Your task to perform on an android device: show emergency info Image 0: 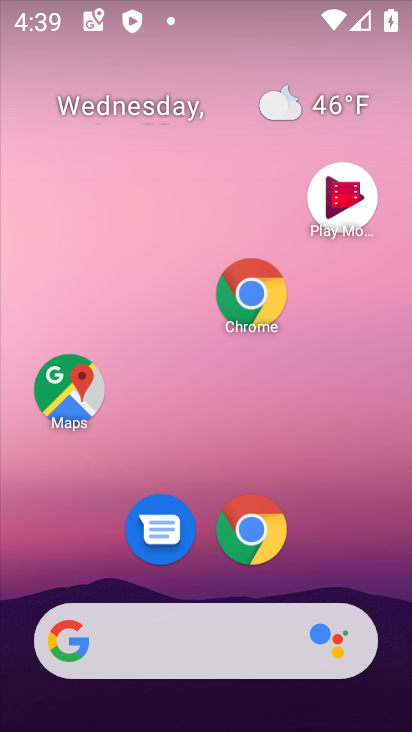
Step 0: drag from (297, 544) to (300, 132)
Your task to perform on an android device: show emergency info Image 1: 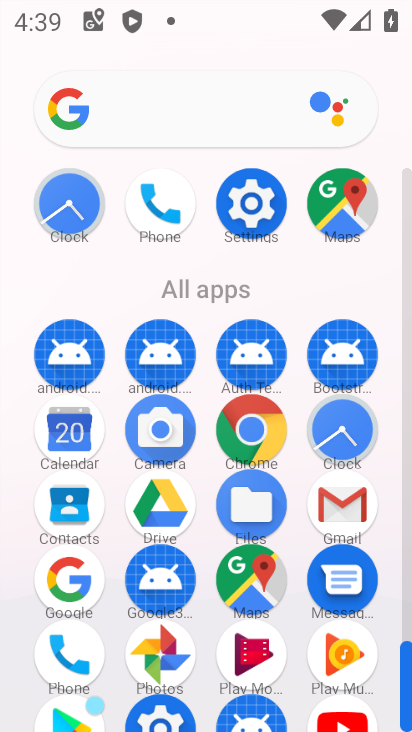
Step 1: click (249, 195)
Your task to perform on an android device: show emergency info Image 2: 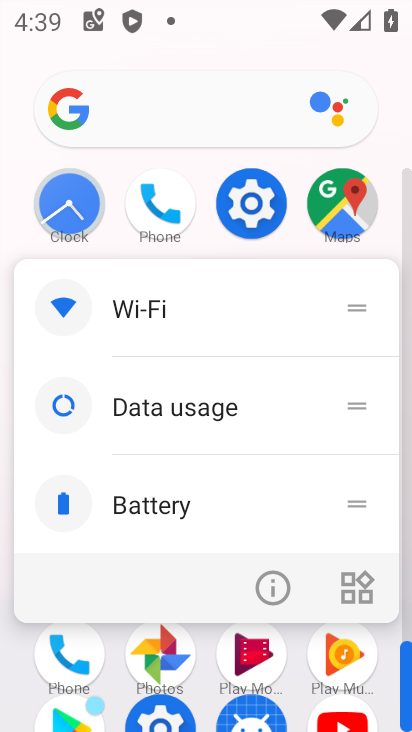
Step 2: click (248, 209)
Your task to perform on an android device: show emergency info Image 3: 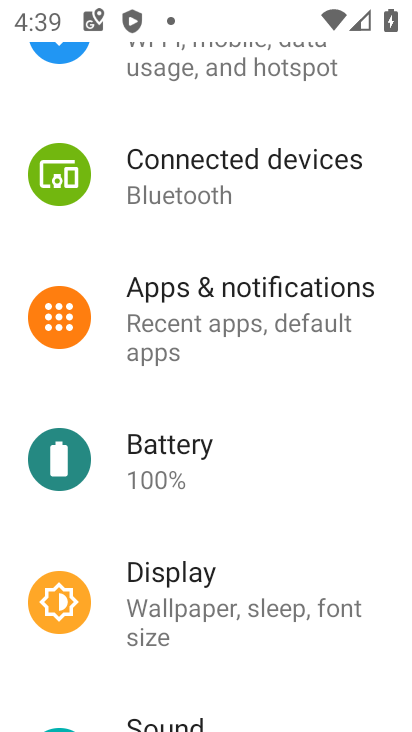
Step 3: drag from (280, 184) to (282, 616)
Your task to perform on an android device: show emergency info Image 4: 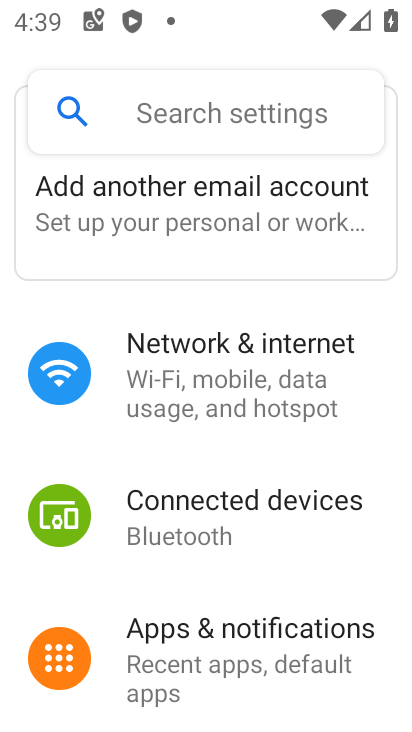
Step 4: click (236, 116)
Your task to perform on an android device: show emergency info Image 5: 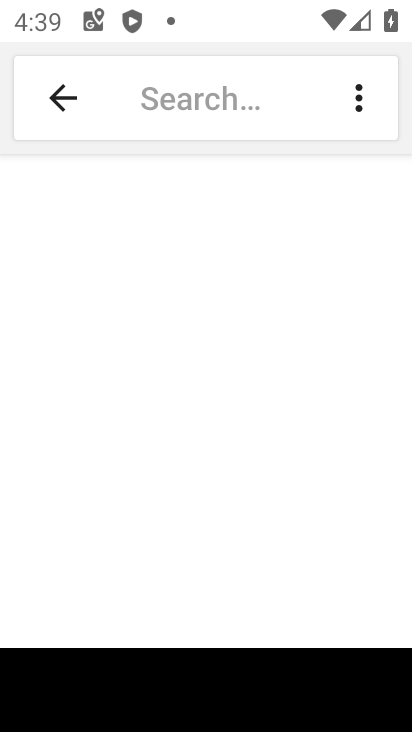
Step 5: type "emergency info"
Your task to perform on an android device: show emergency info Image 6: 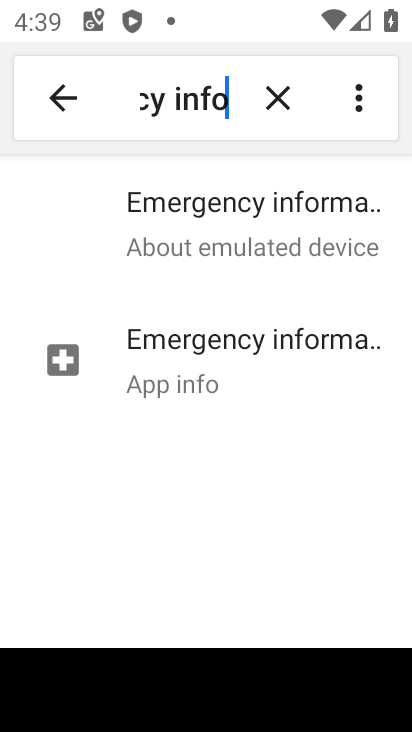
Step 6: click (213, 378)
Your task to perform on an android device: show emergency info Image 7: 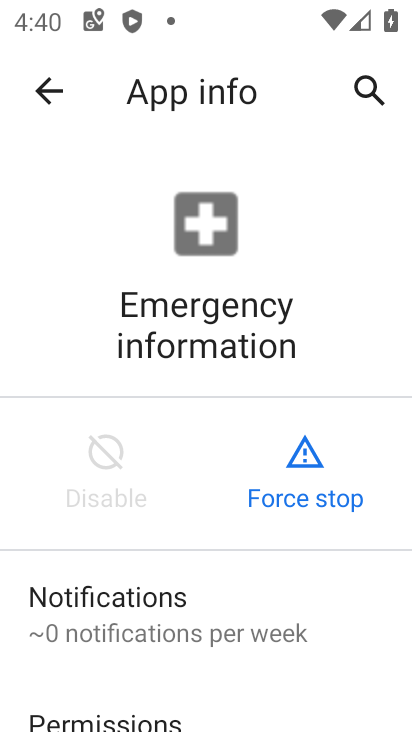
Step 7: task complete